Your task to perform on an android device: Go to Android settings Image 0: 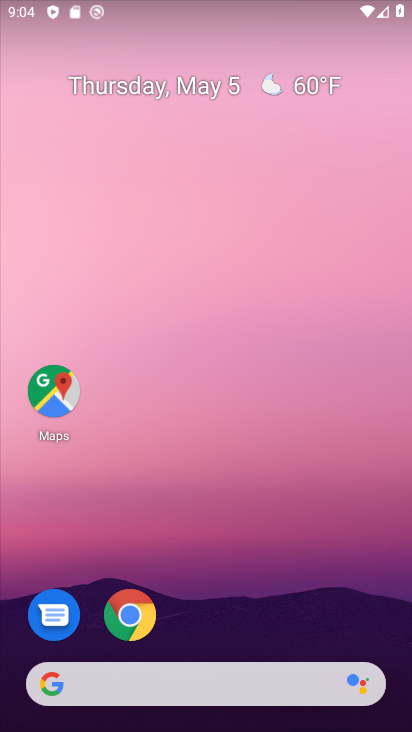
Step 0: drag from (218, 611) to (269, 130)
Your task to perform on an android device: Go to Android settings Image 1: 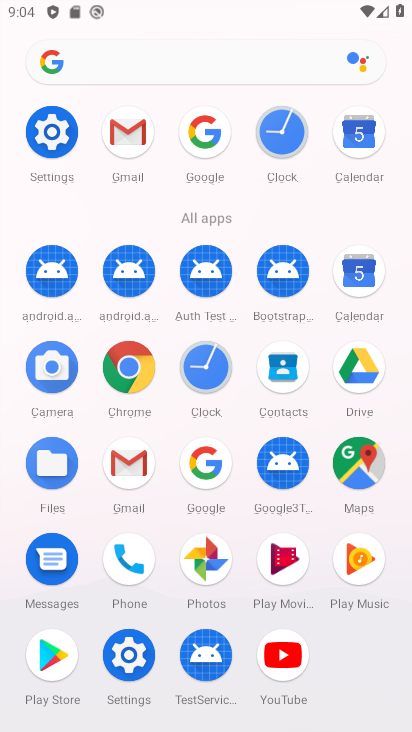
Step 1: click (51, 132)
Your task to perform on an android device: Go to Android settings Image 2: 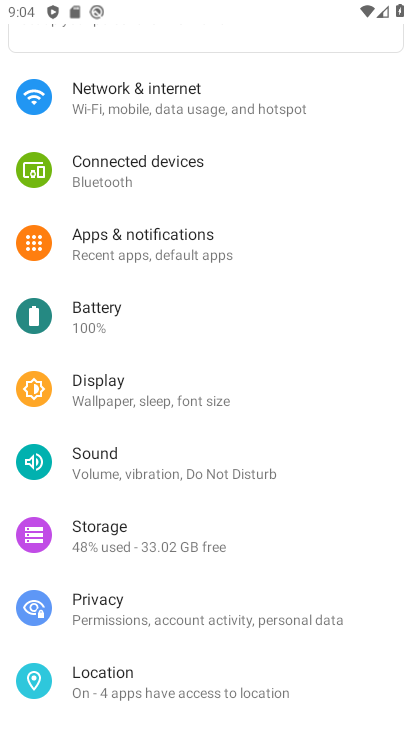
Step 2: task complete